Your task to perform on an android device: toggle pop-ups in chrome Image 0: 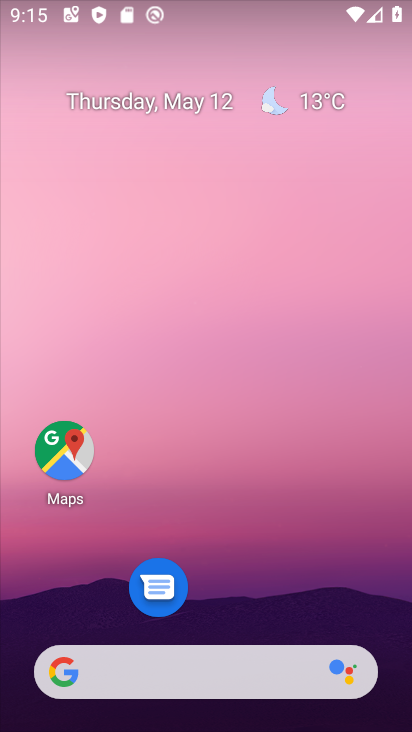
Step 0: drag from (223, 631) to (307, 26)
Your task to perform on an android device: toggle pop-ups in chrome Image 1: 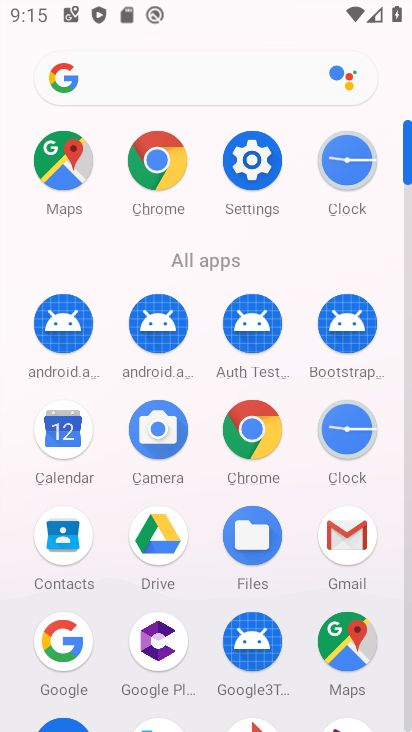
Step 1: click (146, 172)
Your task to perform on an android device: toggle pop-ups in chrome Image 2: 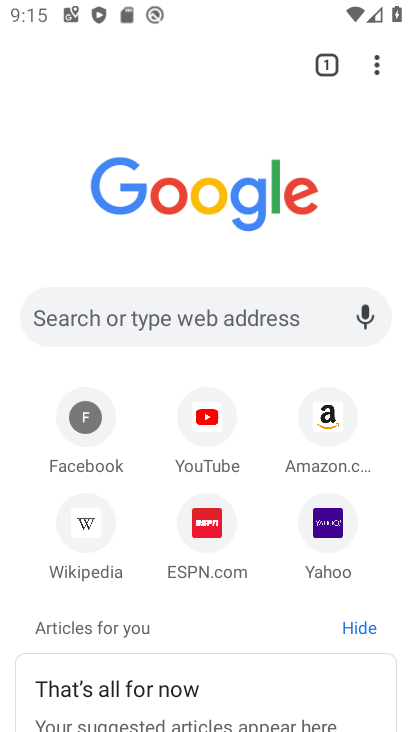
Step 2: click (379, 74)
Your task to perform on an android device: toggle pop-ups in chrome Image 3: 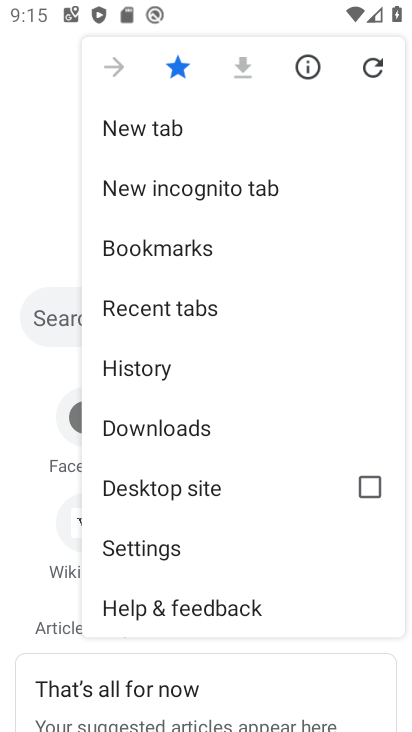
Step 3: click (171, 551)
Your task to perform on an android device: toggle pop-ups in chrome Image 4: 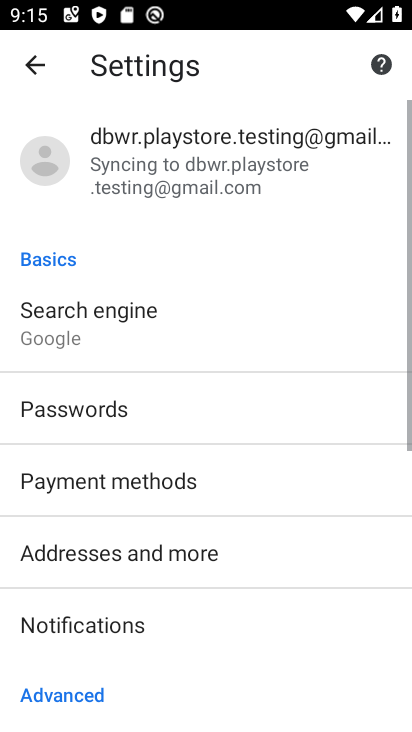
Step 4: drag from (170, 549) to (127, 0)
Your task to perform on an android device: toggle pop-ups in chrome Image 5: 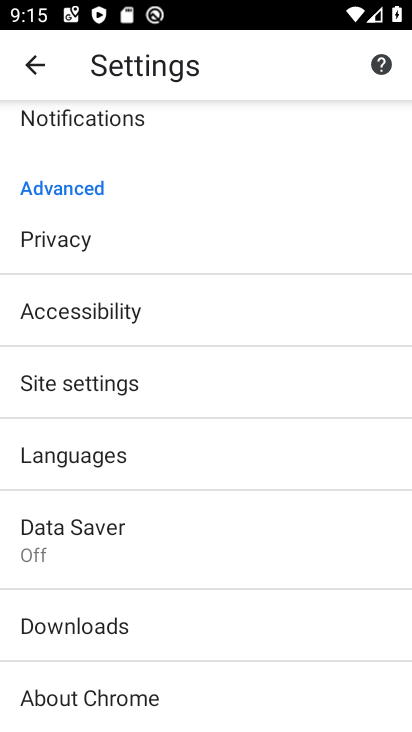
Step 5: click (48, 361)
Your task to perform on an android device: toggle pop-ups in chrome Image 6: 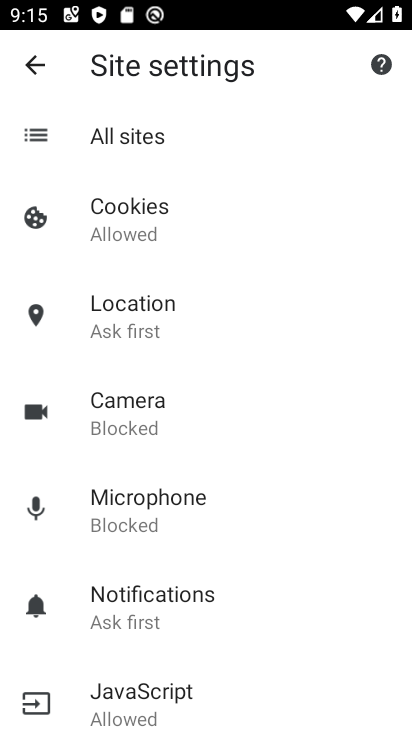
Step 6: drag from (110, 544) to (86, 114)
Your task to perform on an android device: toggle pop-ups in chrome Image 7: 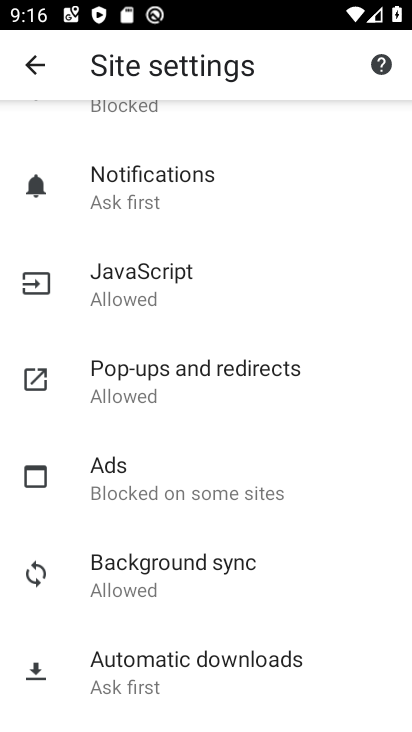
Step 7: click (121, 380)
Your task to perform on an android device: toggle pop-ups in chrome Image 8: 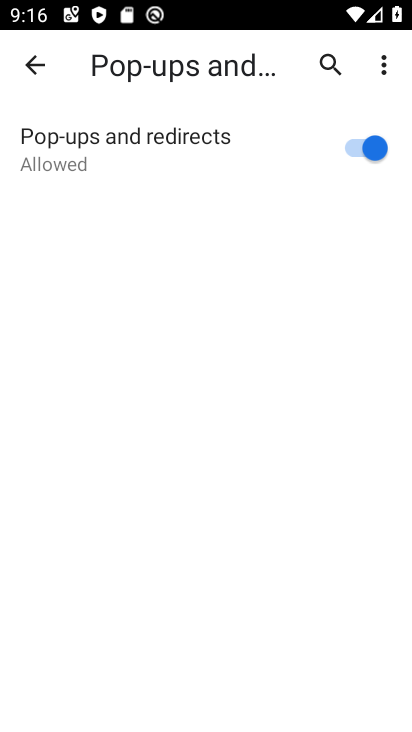
Step 8: click (363, 148)
Your task to perform on an android device: toggle pop-ups in chrome Image 9: 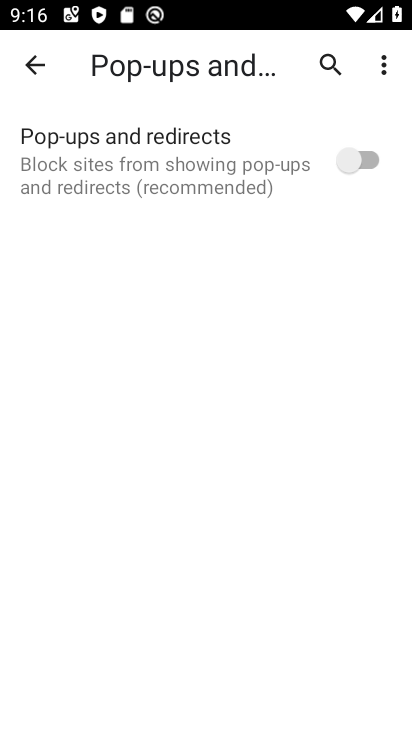
Step 9: task complete